Your task to perform on an android device: Open Google Maps and go to "Timeline" Image 0: 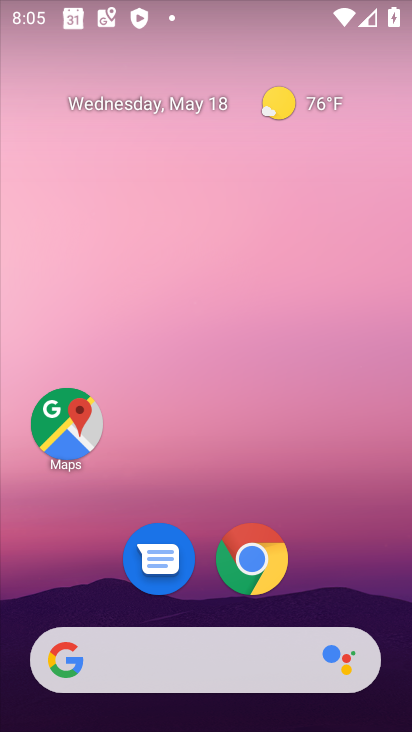
Step 0: click (74, 428)
Your task to perform on an android device: Open Google Maps and go to "Timeline" Image 1: 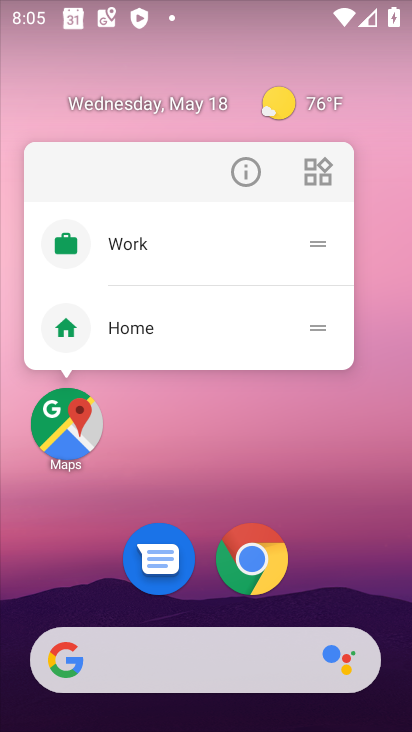
Step 1: click (73, 419)
Your task to perform on an android device: Open Google Maps and go to "Timeline" Image 2: 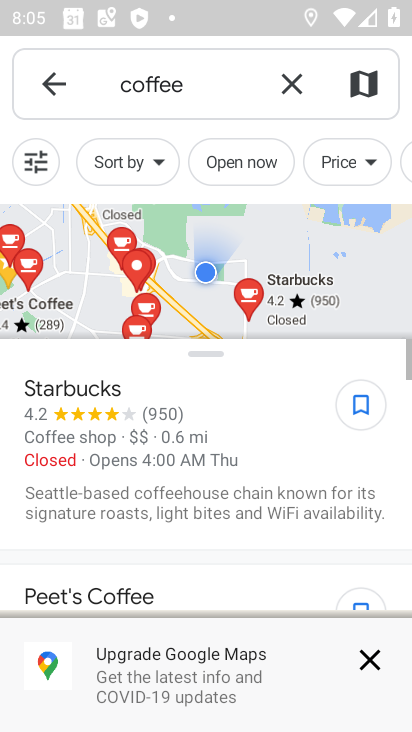
Step 2: click (301, 84)
Your task to perform on an android device: Open Google Maps and go to "Timeline" Image 3: 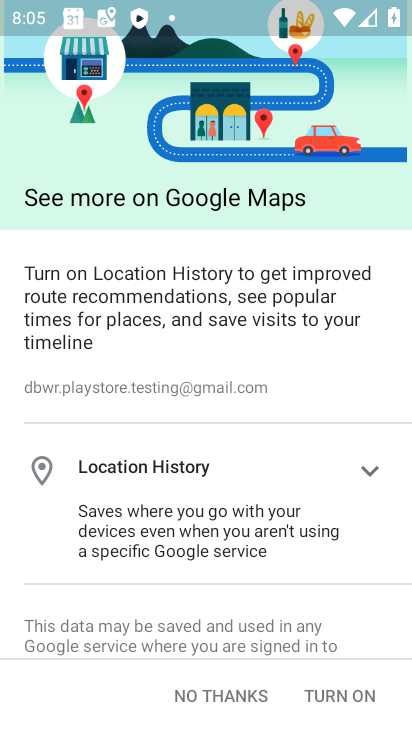
Step 3: click (208, 689)
Your task to perform on an android device: Open Google Maps and go to "Timeline" Image 4: 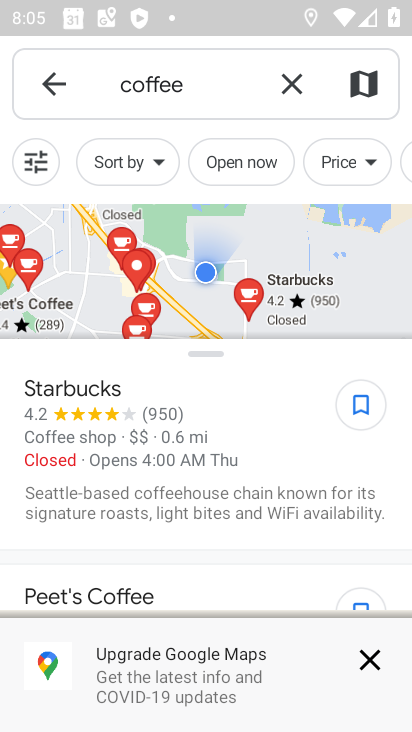
Step 4: press back button
Your task to perform on an android device: Open Google Maps and go to "Timeline" Image 5: 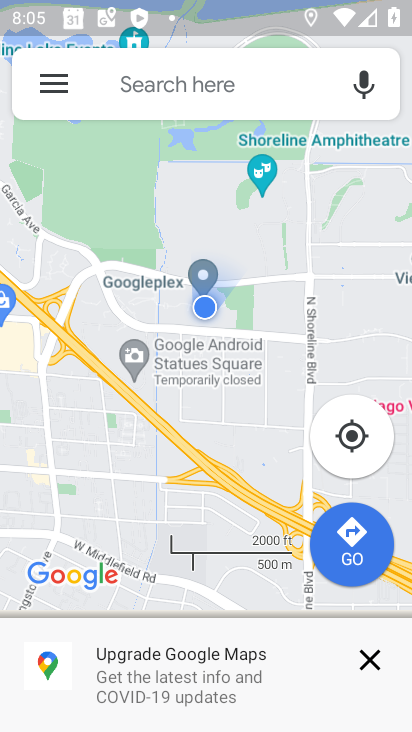
Step 5: click (30, 76)
Your task to perform on an android device: Open Google Maps and go to "Timeline" Image 6: 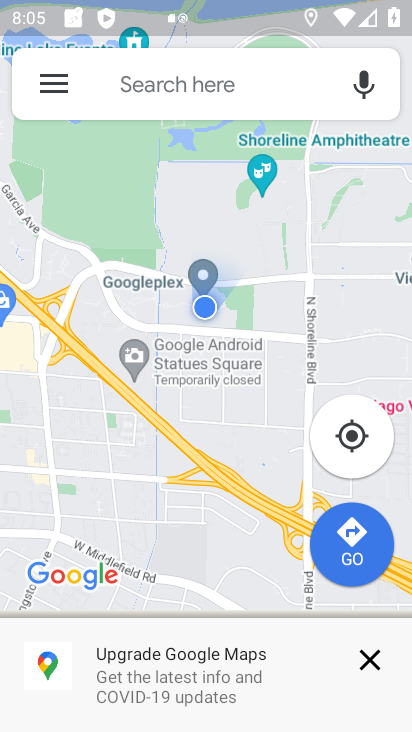
Step 6: click (57, 83)
Your task to perform on an android device: Open Google Maps and go to "Timeline" Image 7: 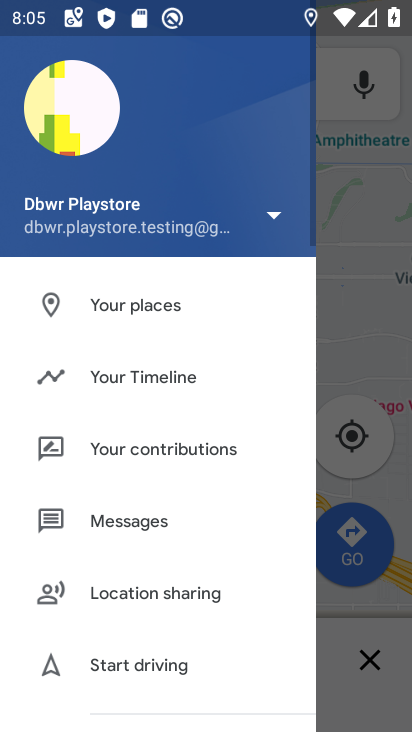
Step 7: click (157, 376)
Your task to perform on an android device: Open Google Maps and go to "Timeline" Image 8: 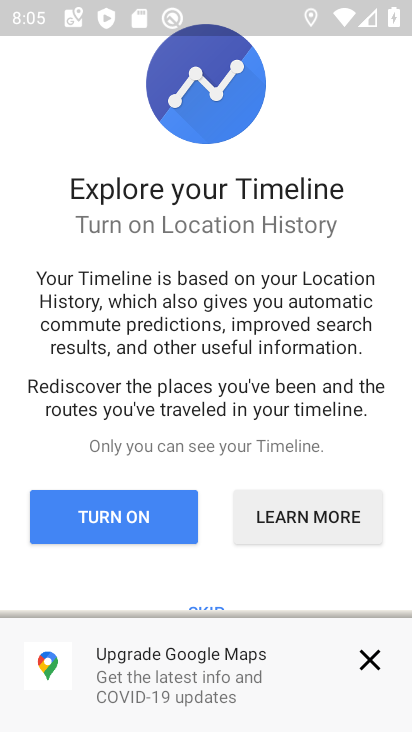
Step 8: click (209, 600)
Your task to perform on an android device: Open Google Maps and go to "Timeline" Image 9: 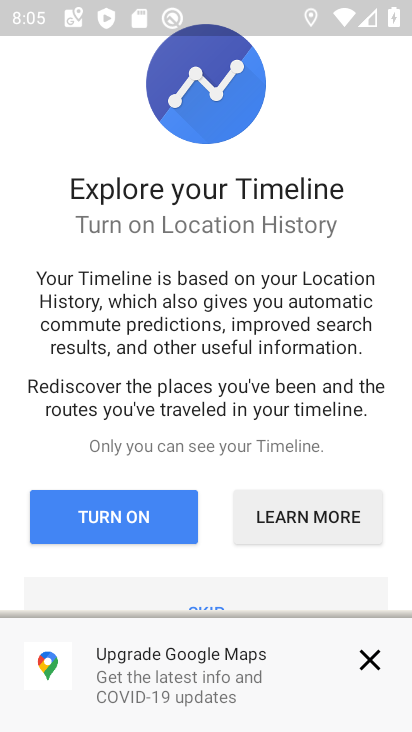
Step 9: click (210, 606)
Your task to perform on an android device: Open Google Maps and go to "Timeline" Image 10: 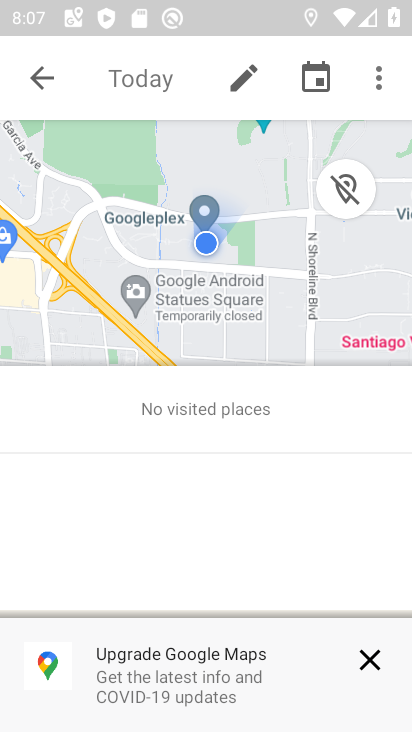
Step 10: task complete